Your task to perform on an android device: What is the news today? Image 0: 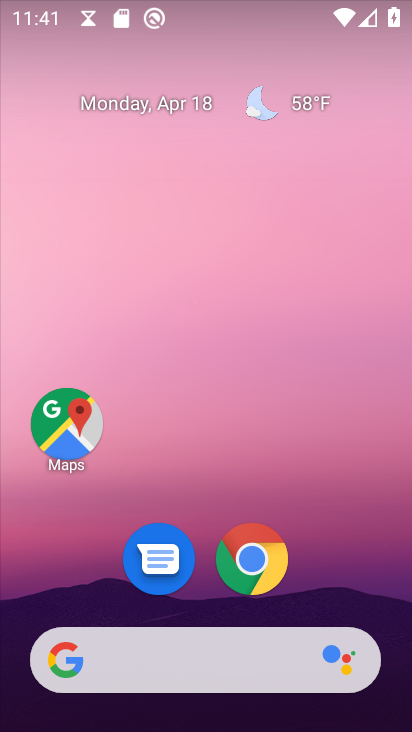
Step 0: click (246, 562)
Your task to perform on an android device: What is the news today? Image 1: 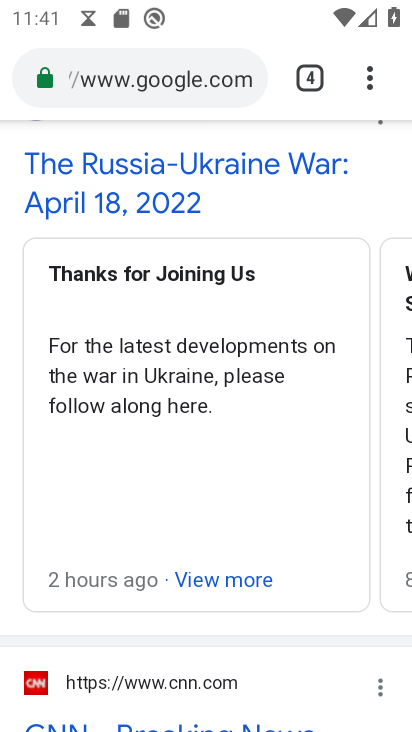
Step 1: click (308, 87)
Your task to perform on an android device: What is the news today? Image 2: 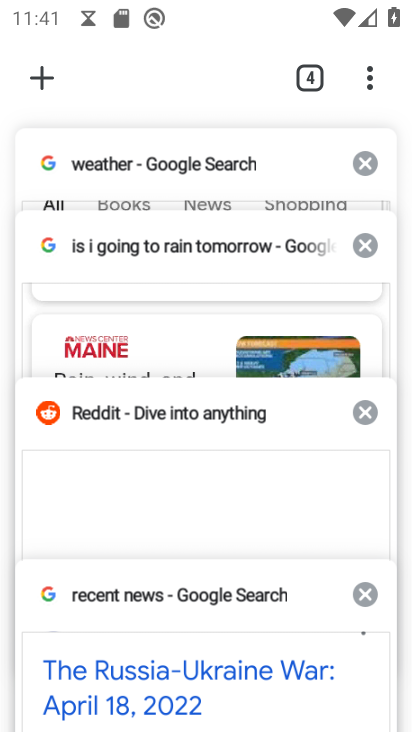
Step 2: click (35, 70)
Your task to perform on an android device: What is the news today? Image 3: 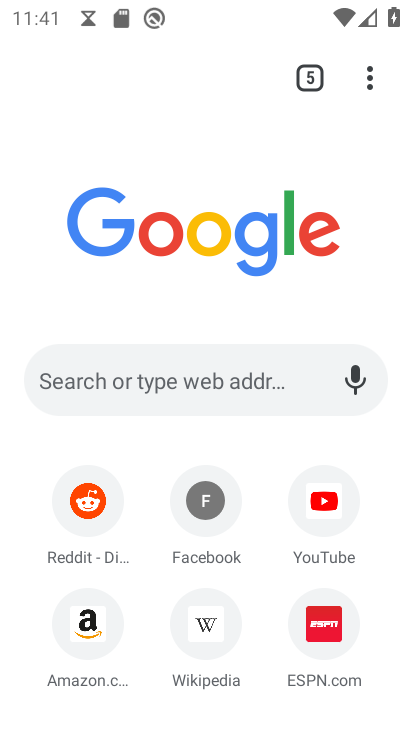
Step 3: click (131, 386)
Your task to perform on an android device: What is the news today? Image 4: 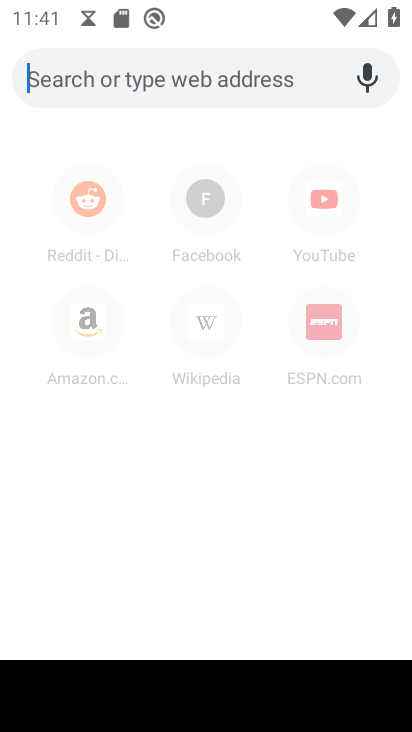
Step 4: type "news today"
Your task to perform on an android device: What is the news today? Image 5: 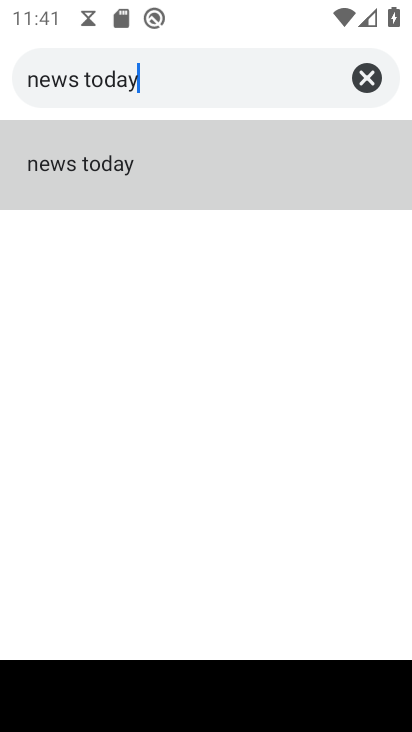
Step 5: click (161, 177)
Your task to perform on an android device: What is the news today? Image 6: 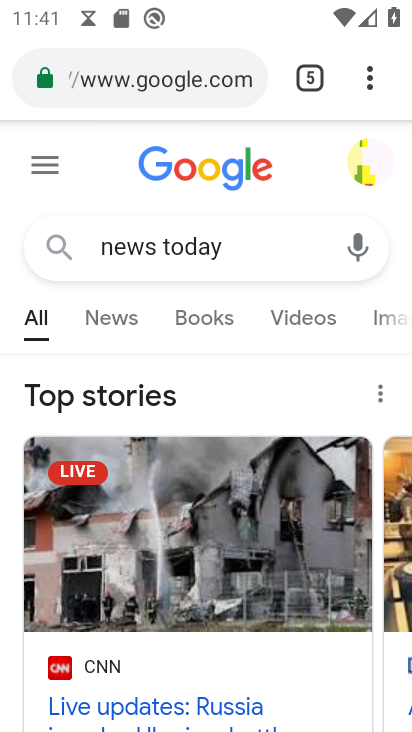
Step 6: click (125, 327)
Your task to perform on an android device: What is the news today? Image 7: 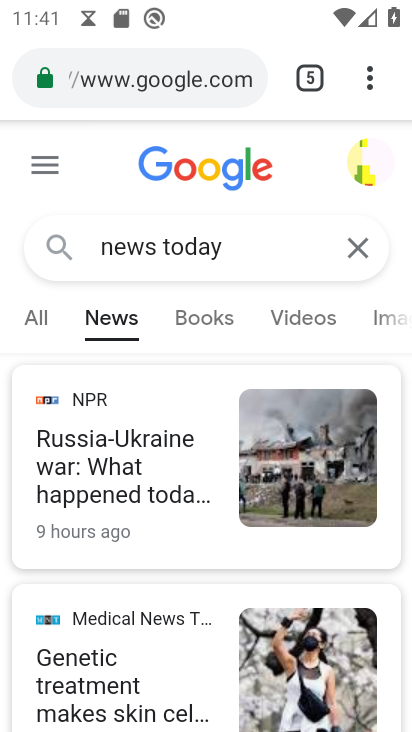
Step 7: task complete